Your task to perform on an android device: Open Chrome and go to settings Image 0: 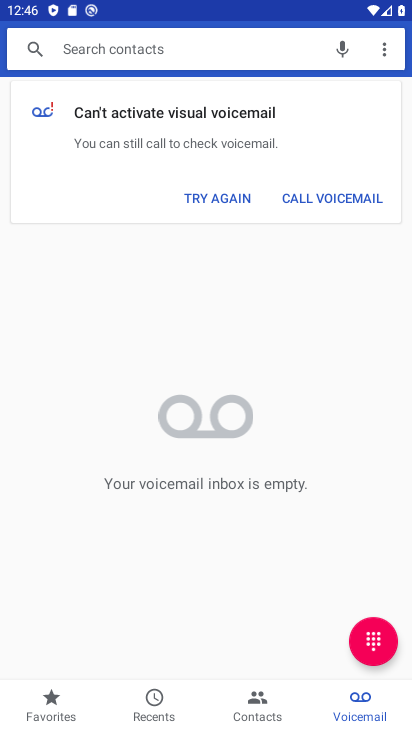
Step 0: press home button
Your task to perform on an android device: Open Chrome and go to settings Image 1: 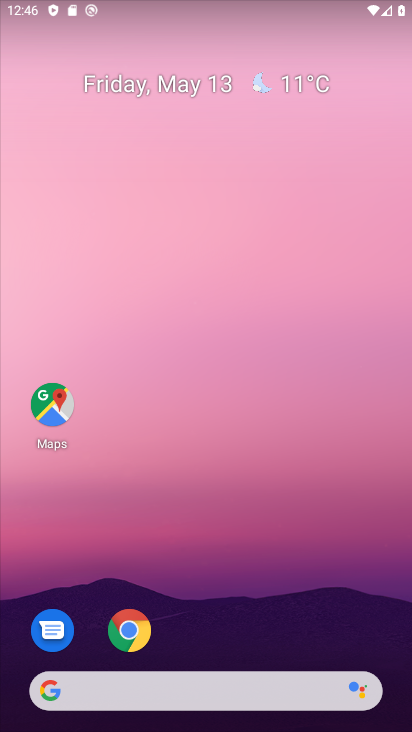
Step 1: drag from (256, 642) to (261, 263)
Your task to perform on an android device: Open Chrome and go to settings Image 2: 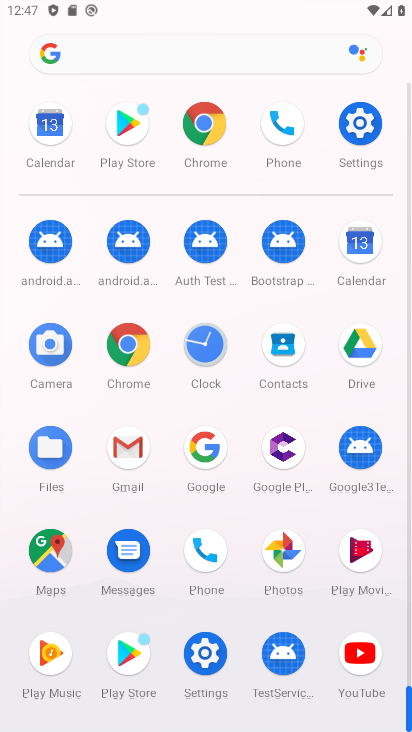
Step 2: click (129, 373)
Your task to perform on an android device: Open Chrome and go to settings Image 3: 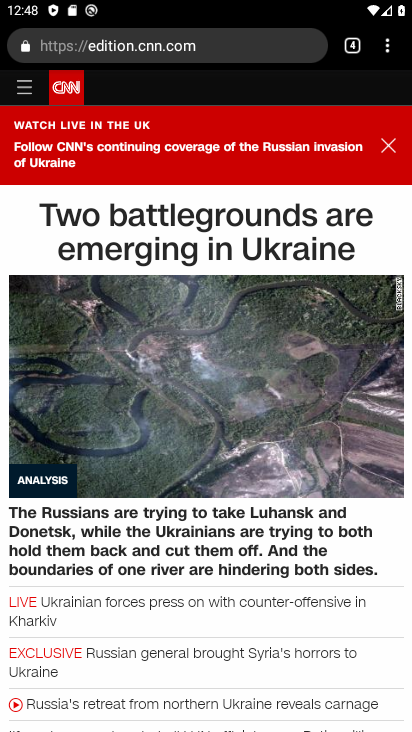
Step 3: click (383, 45)
Your task to perform on an android device: Open Chrome and go to settings Image 4: 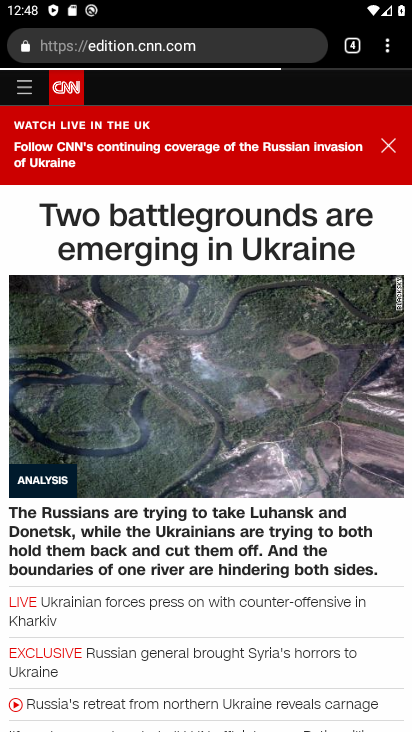
Step 4: click (388, 54)
Your task to perform on an android device: Open Chrome and go to settings Image 5: 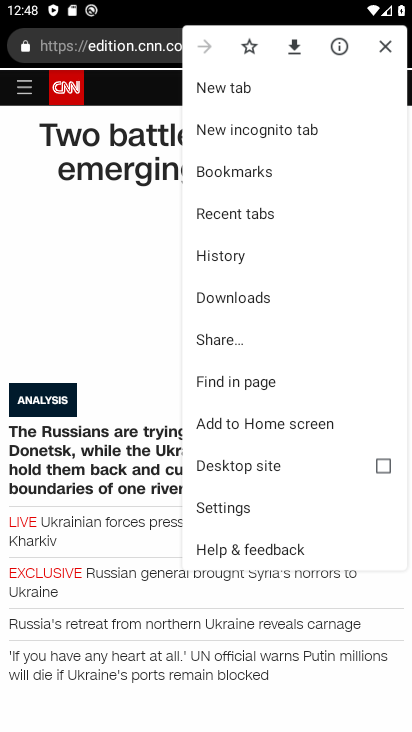
Step 5: click (265, 517)
Your task to perform on an android device: Open Chrome and go to settings Image 6: 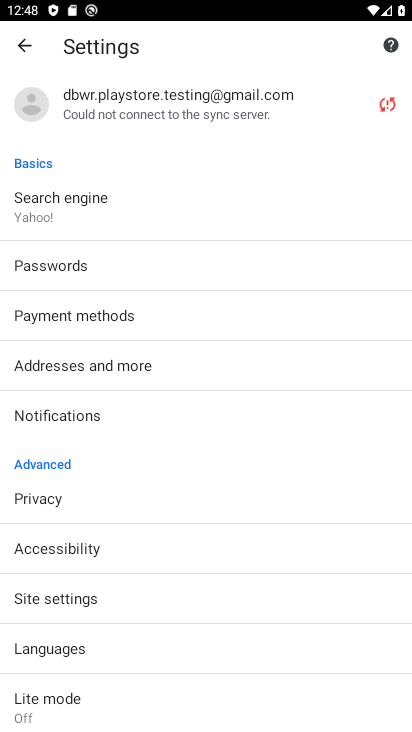
Step 6: task complete